Your task to perform on an android device: turn off picture-in-picture Image 0: 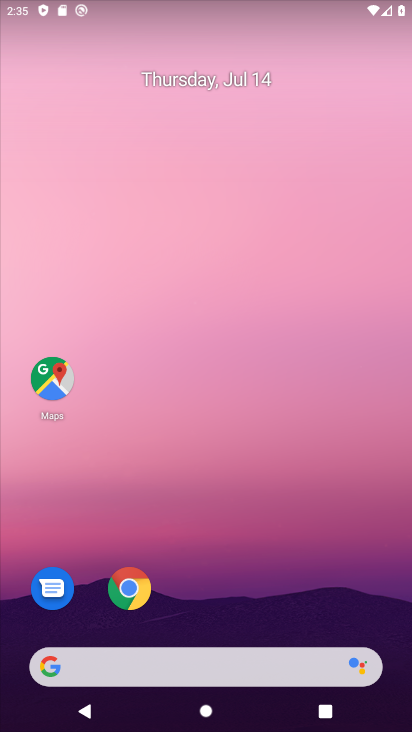
Step 0: click (141, 606)
Your task to perform on an android device: turn off picture-in-picture Image 1: 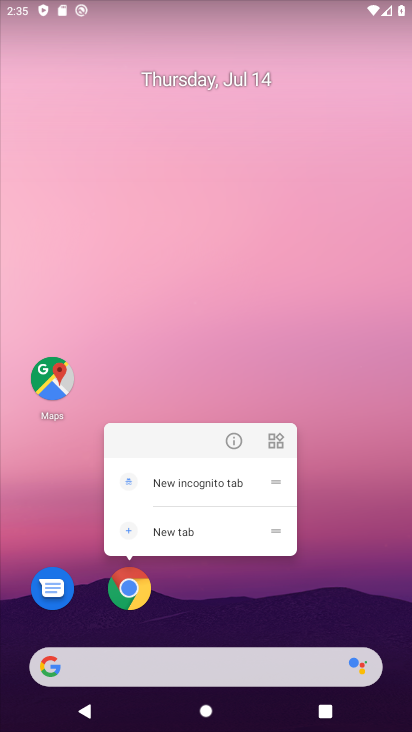
Step 1: click (235, 442)
Your task to perform on an android device: turn off picture-in-picture Image 2: 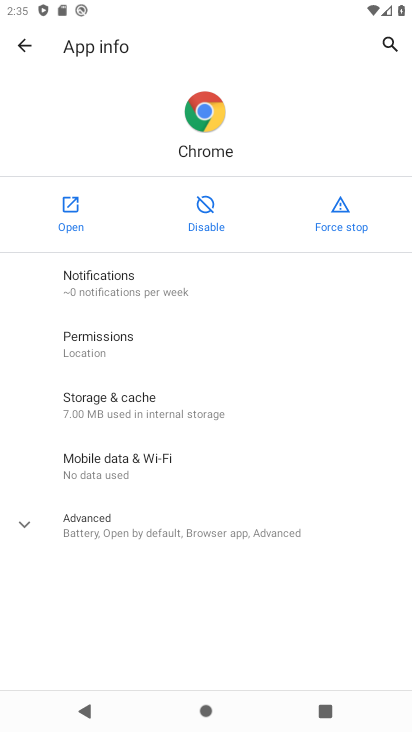
Step 2: click (159, 524)
Your task to perform on an android device: turn off picture-in-picture Image 3: 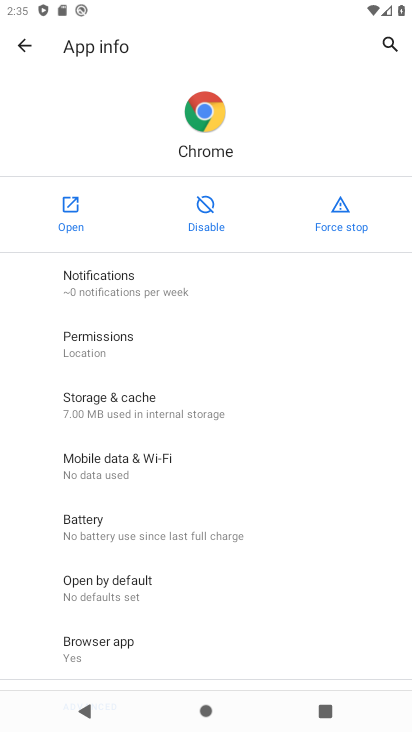
Step 3: drag from (167, 607) to (157, 198)
Your task to perform on an android device: turn off picture-in-picture Image 4: 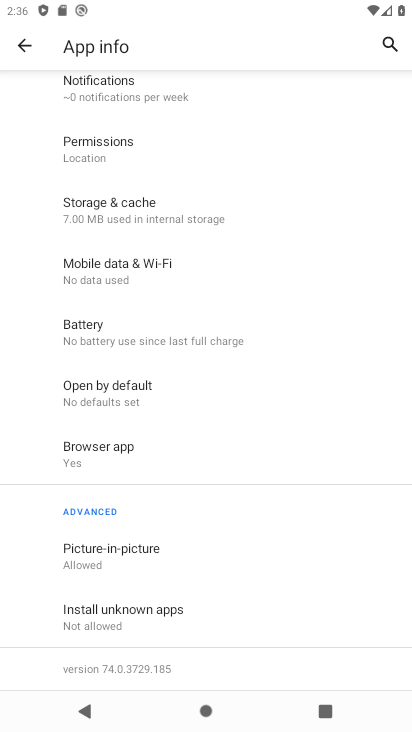
Step 4: click (142, 575)
Your task to perform on an android device: turn off picture-in-picture Image 5: 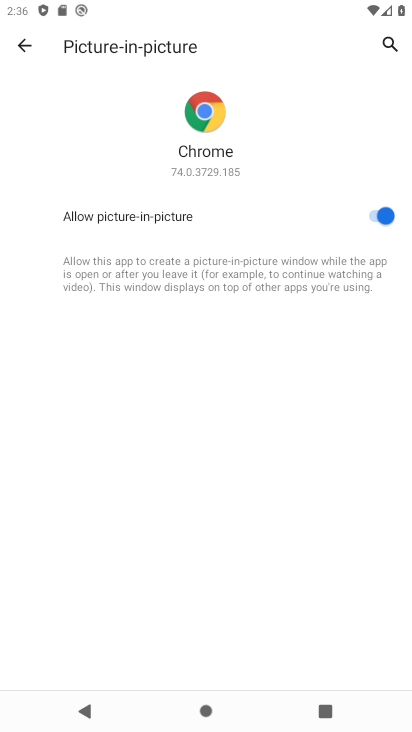
Step 5: click (380, 212)
Your task to perform on an android device: turn off picture-in-picture Image 6: 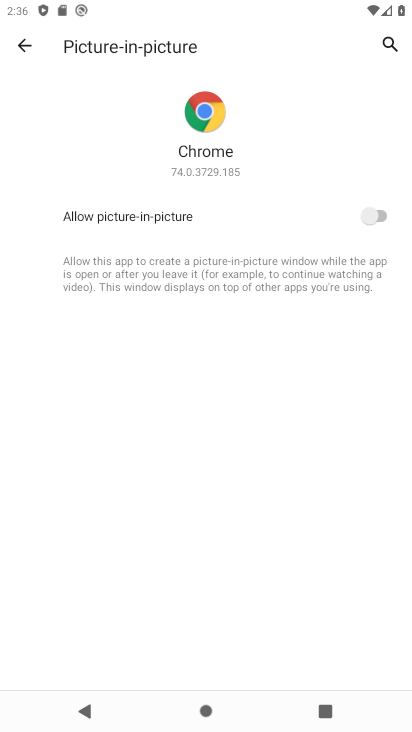
Step 6: task complete